Your task to perform on an android device: choose inbox layout in the gmail app Image 0: 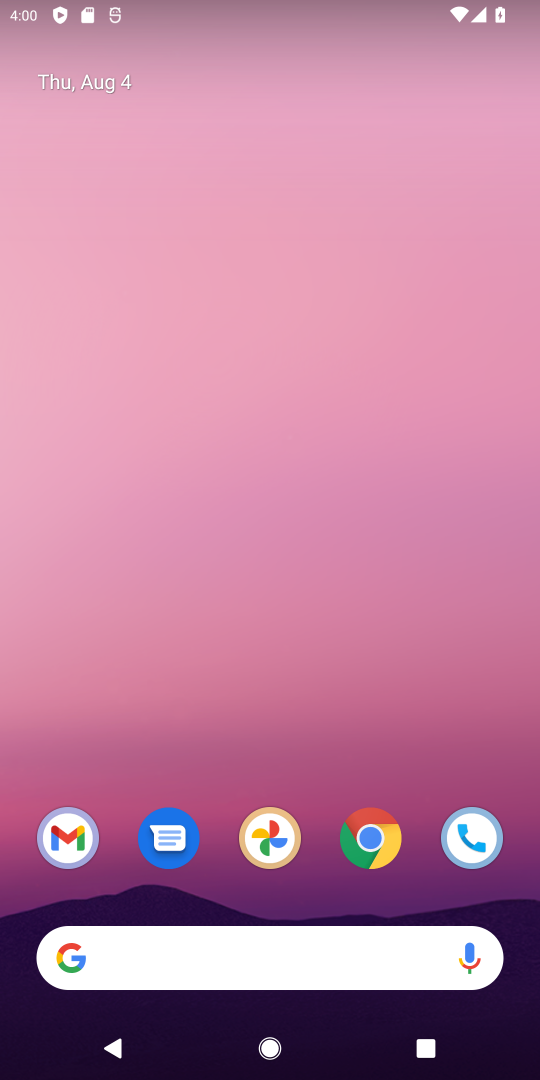
Step 0: click (65, 840)
Your task to perform on an android device: choose inbox layout in the gmail app Image 1: 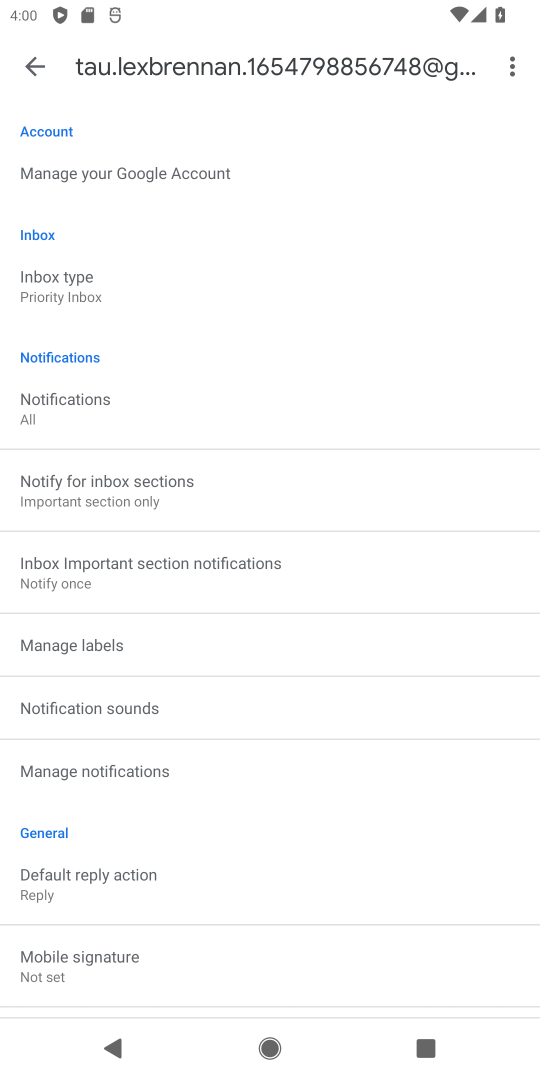
Step 1: click (123, 277)
Your task to perform on an android device: choose inbox layout in the gmail app Image 2: 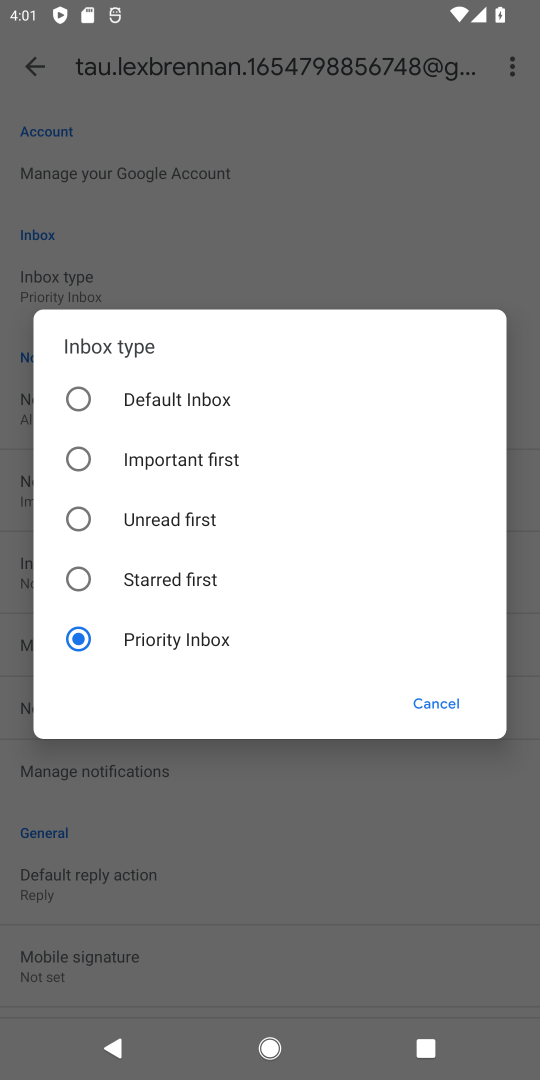
Step 2: click (147, 514)
Your task to perform on an android device: choose inbox layout in the gmail app Image 3: 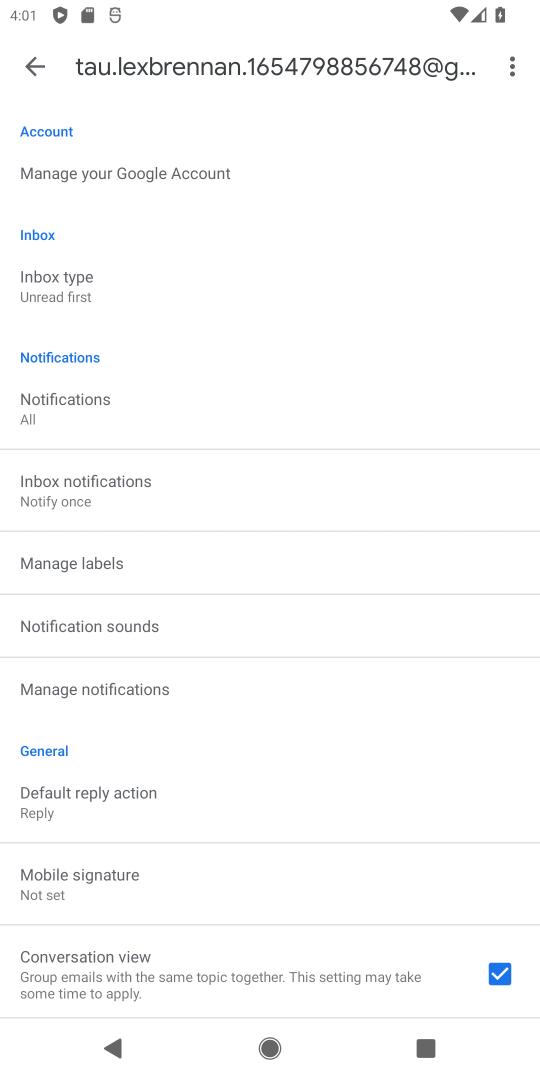
Step 3: task complete